Your task to perform on an android device: turn off airplane mode Image 0: 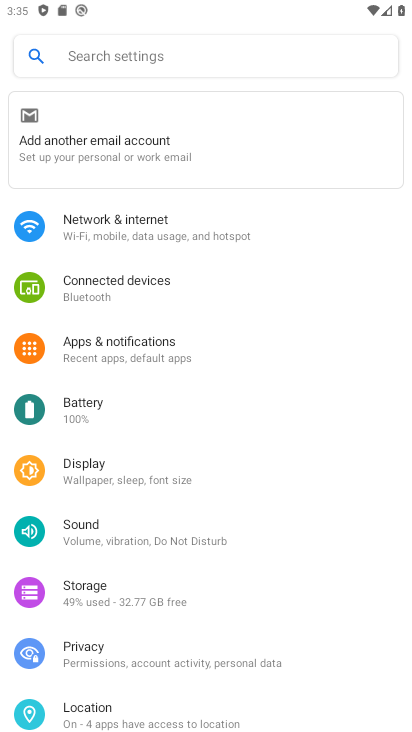
Step 0: click (190, 246)
Your task to perform on an android device: turn off airplane mode Image 1: 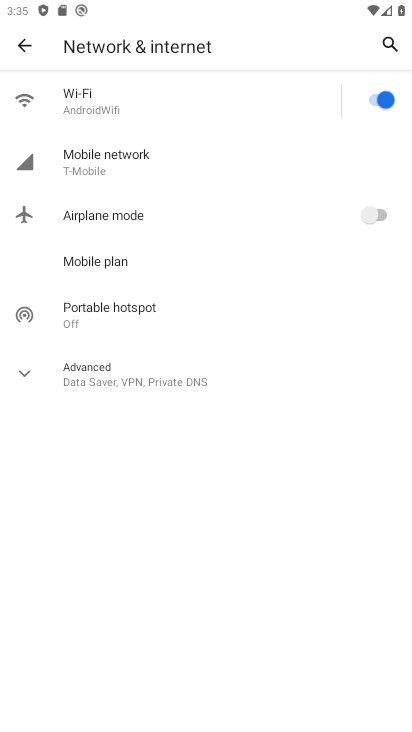
Step 1: click (70, 390)
Your task to perform on an android device: turn off airplane mode Image 2: 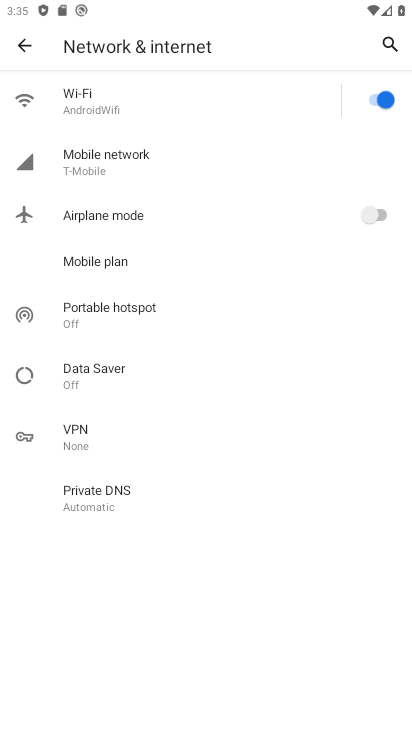
Step 2: click (375, 212)
Your task to perform on an android device: turn off airplane mode Image 3: 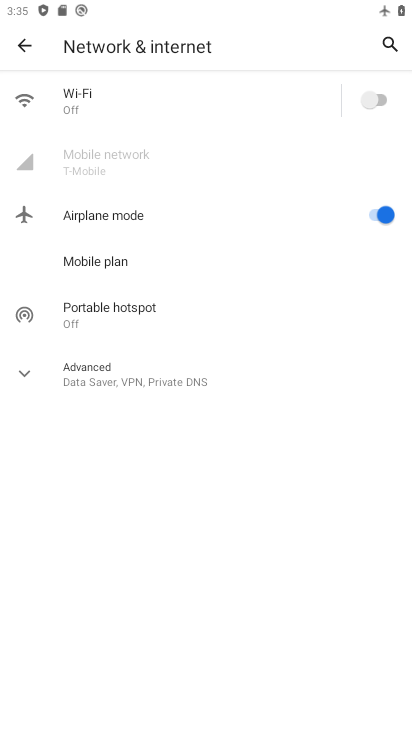
Step 3: click (375, 212)
Your task to perform on an android device: turn off airplane mode Image 4: 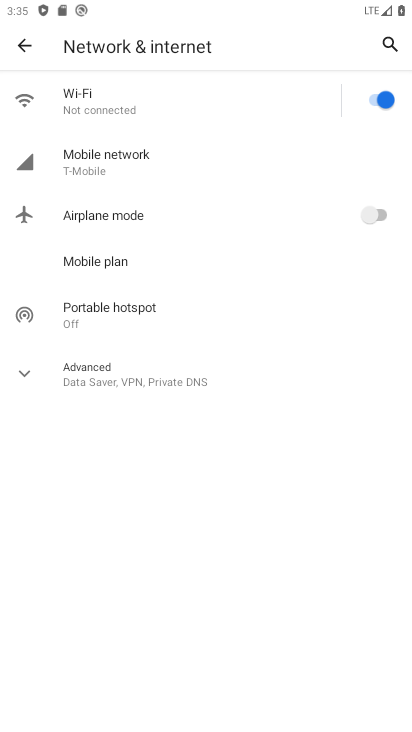
Step 4: task complete